Your task to perform on an android device: Open Chrome and go to the settings page Image 0: 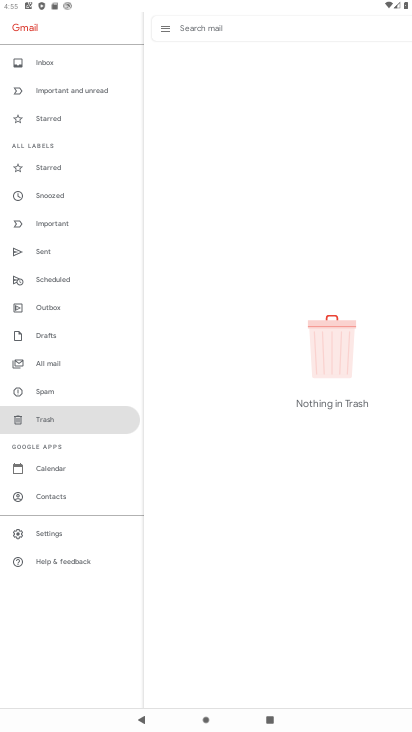
Step 0: press home button
Your task to perform on an android device: Open Chrome and go to the settings page Image 1: 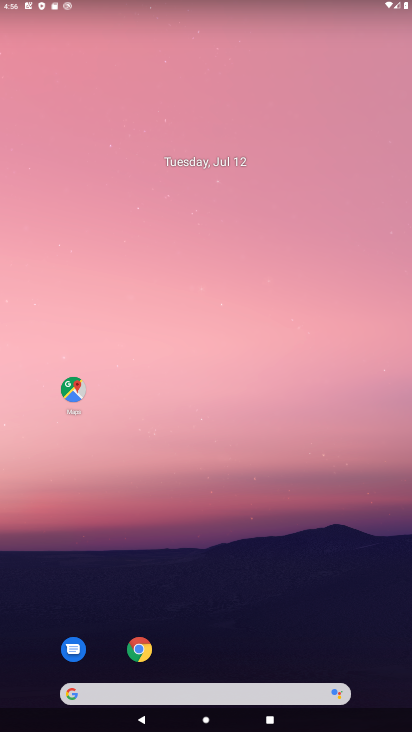
Step 1: click (139, 650)
Your task to perform on an android device: Open Chrome and go to the settings page Image 2: 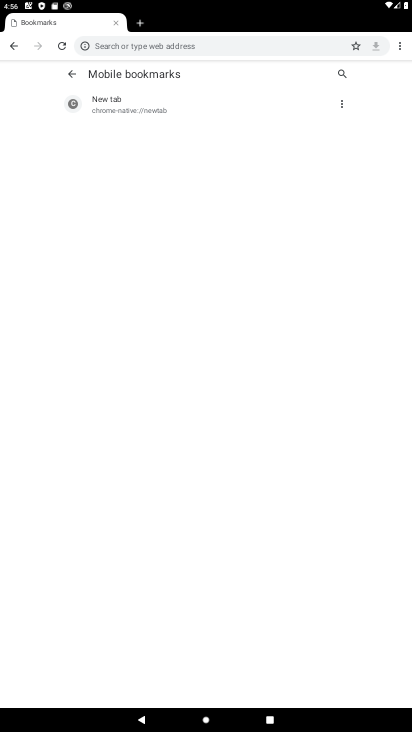
Step 2: click (402, 48)
Your task to perform on an android device: Open Chrome and go to the settings page Image 3: 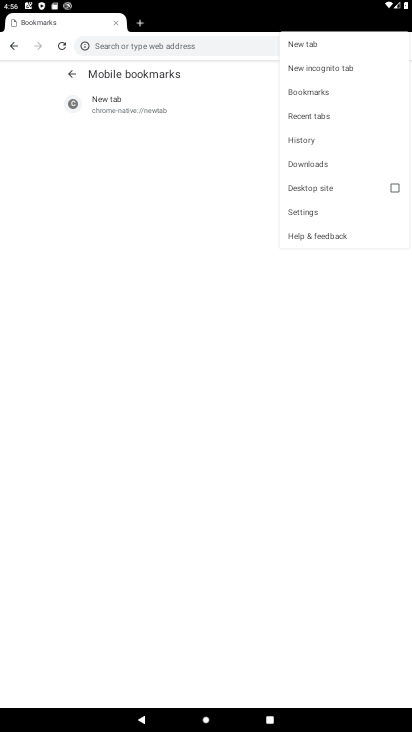
Step 3: click (307, 212)
Your task to perform on an android device: Open Chrome and go to the settings page Image 4: 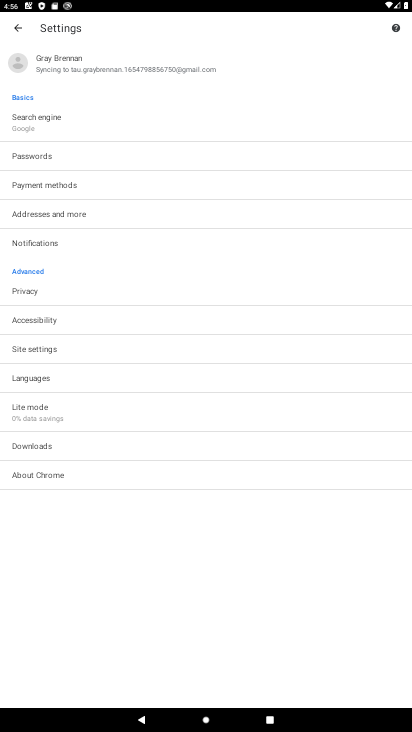
Step 4: task complete